Your task to perform on an android device: Open settings on Google Maps Image 0: 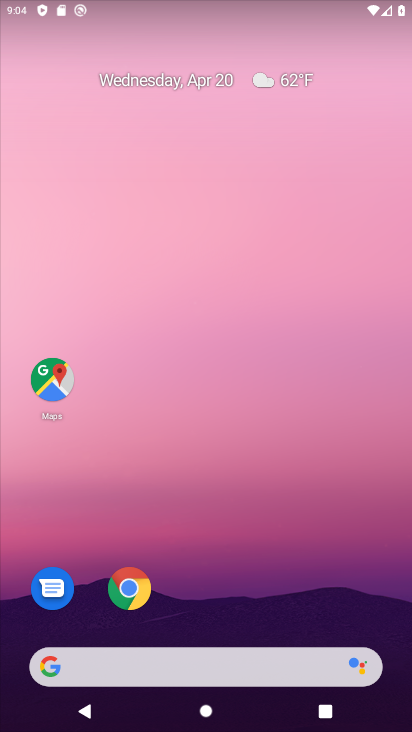
Step 0: drag from (203, 544) to (120, 72)
Your task to perform on an android device: Open settings on Google Maps Image 1: 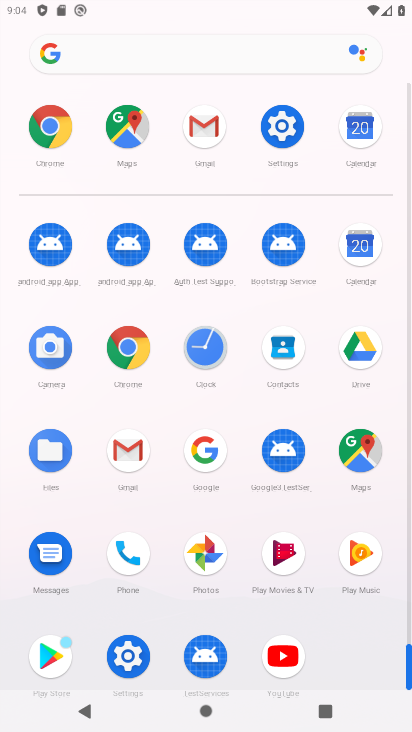
Step 1: drag from (3, 449) to (15, 294)
Your task to perform on an android device: Open settings on Google Maps Image 2: 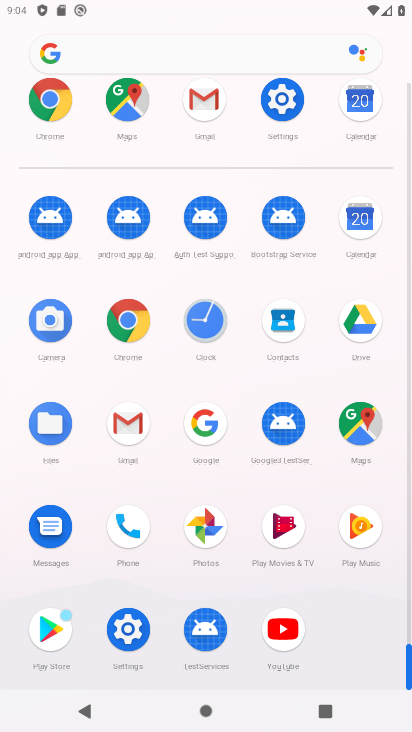
Step 2: click (356, 416)
Your task to perform on an android device: Open settings on Google Maps Image 3: 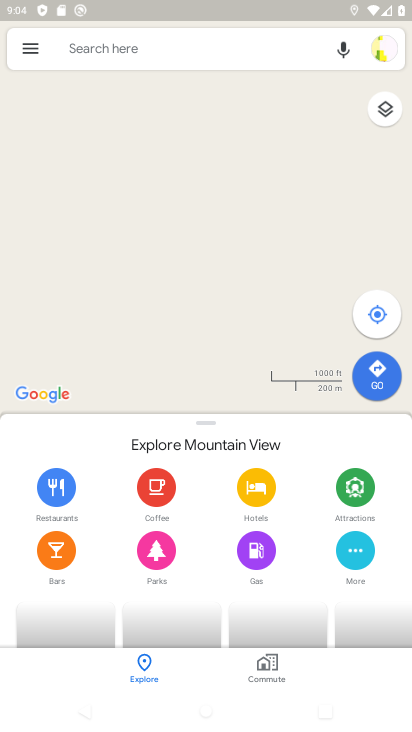
Step 3: click (172, 39)
Your task to perform on an android device: Open settings on Google Maps Image 4: 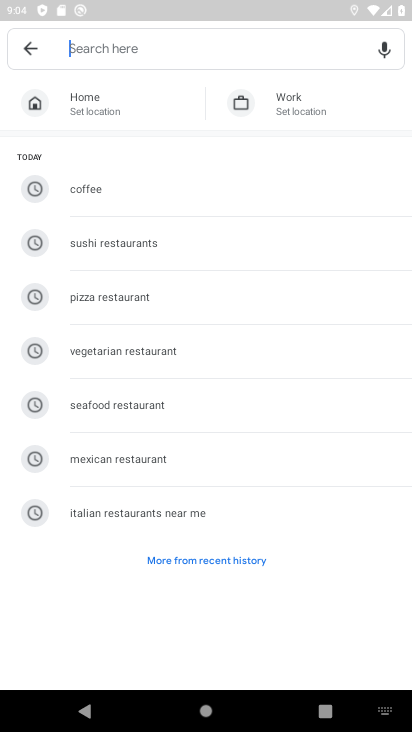
Step 4: click (29, 47)
Your task to perform on an android device: Open settings on Google Maps Image 5: 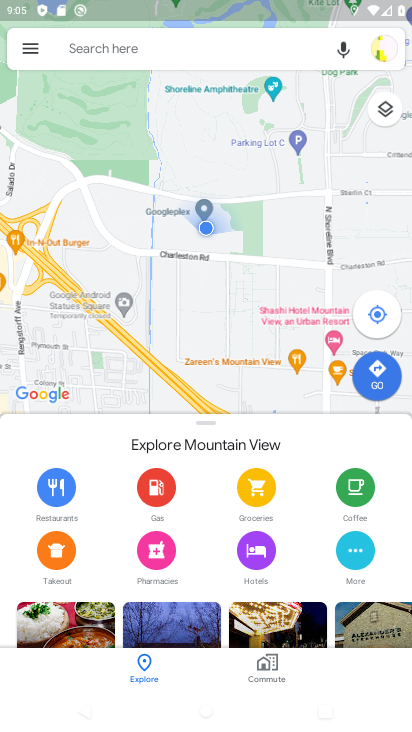
Step 5: task complete